Your task to perform on an android device: Open notification settings Image 0: 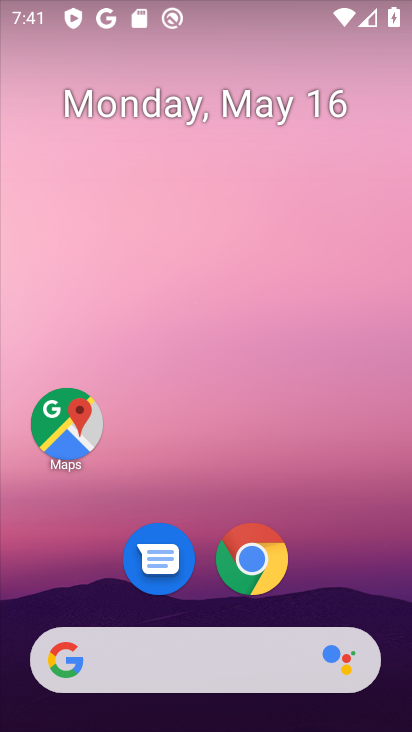
Step 0: drag from (312, 544) to (338, 163)
Your task to perform on an android device: Open notification settings Image 1: 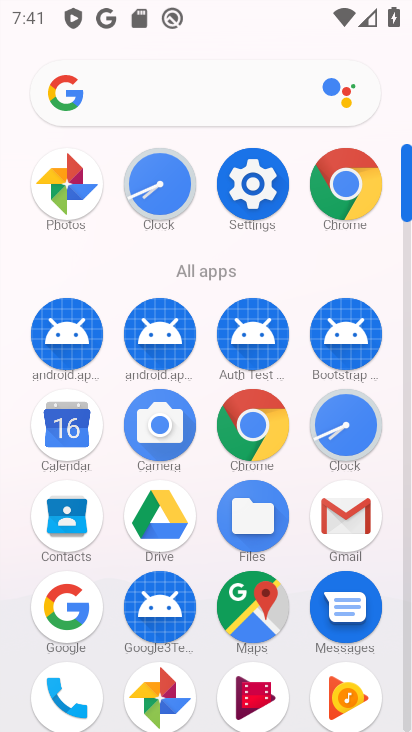
Step 1: click (262, 208)
Your task to perform on an android device: Open notification settings Image 2: 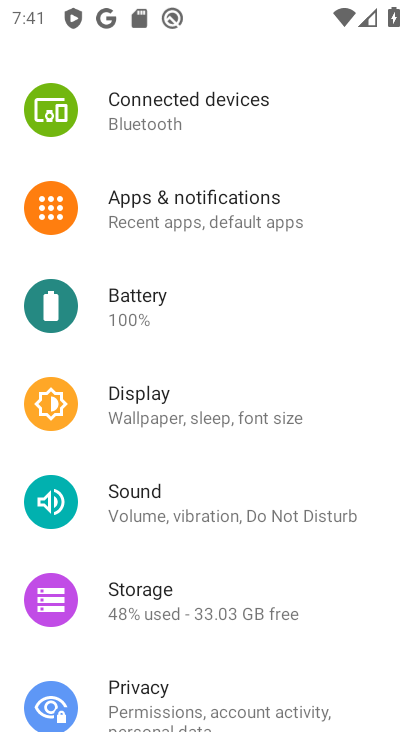
Step 2: click (213, 204)
Your task to perform on an android device: Open notification settings Image 3: 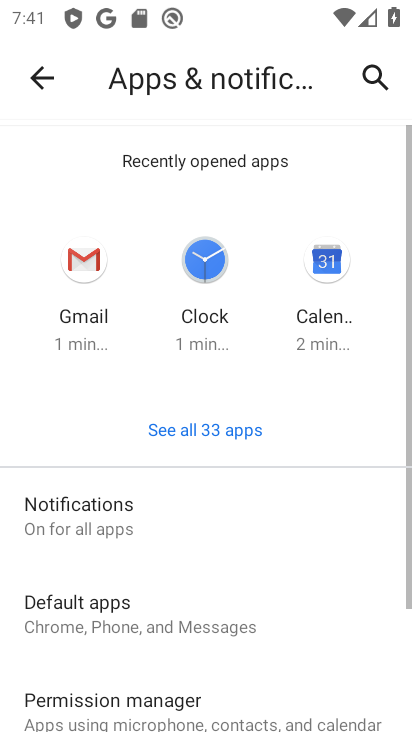
Step 3: drag from (239, 582) to (270, 234)
Your task to perform on an android device: Open notification settings Image 4: 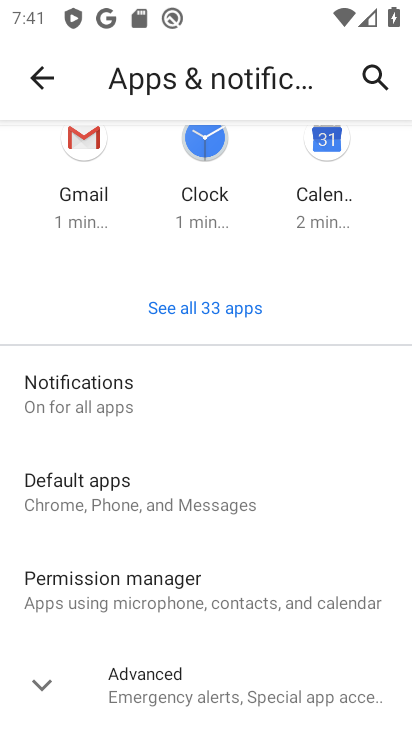
Step 4: click (54, 397)
Your task to perform on an android device: Open notification settings Image 5: 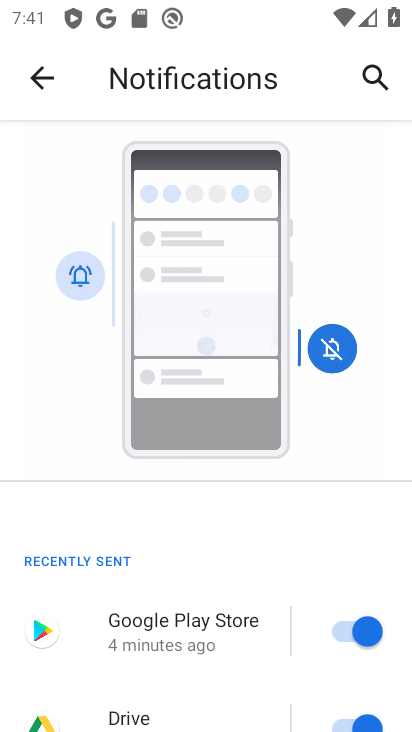
Step 5: task complete